Your task to perform on an android device: Go to accessibility settings Image 0: 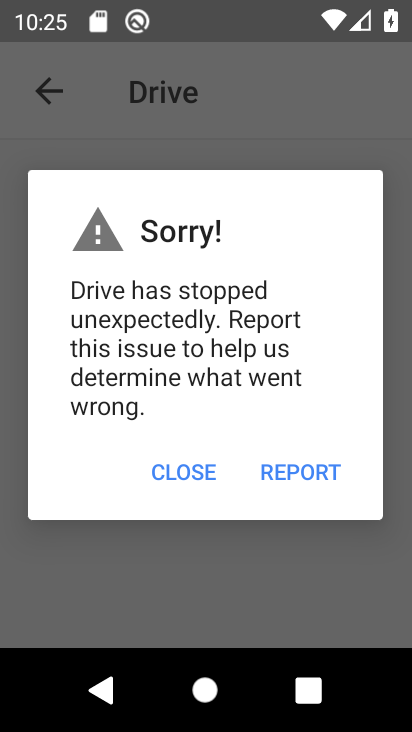
Step 0: press home button
Your task to perform on an android device: Go to accessibility settings Image 1: 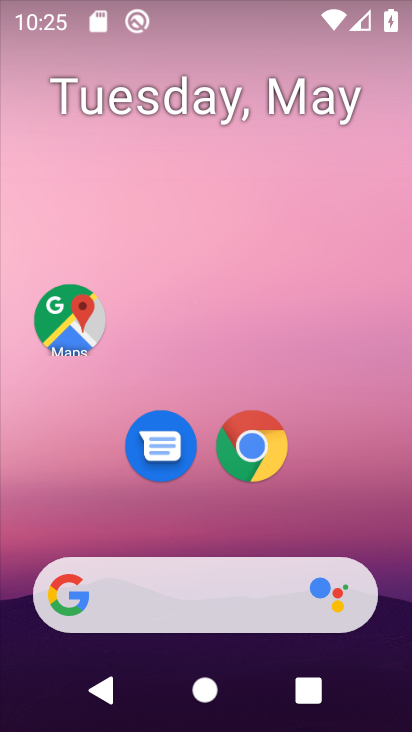
Step 1: drag from (184, 532) to (221, 199)
Your task to perform on an android device: Go to accessibility settings Image 2: 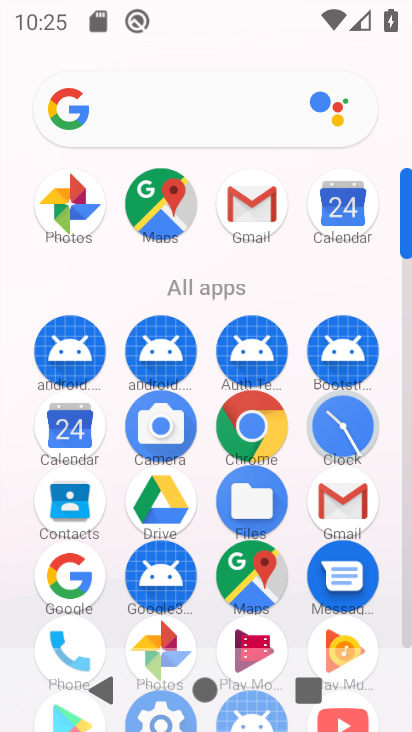
Step 2: drag from (206, 288) to (220, 113)
Your task to perform on an android device: Go to accessibility settings Image 3: 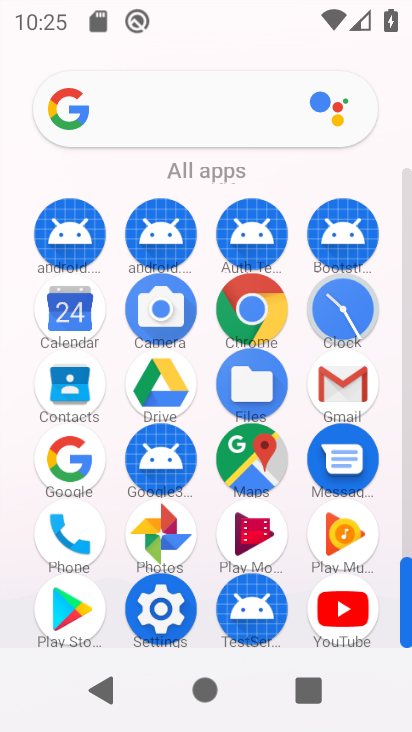
Step 3: click (147, 616)
Your task to perform on an android device: Go to accessibility settings Image 4: 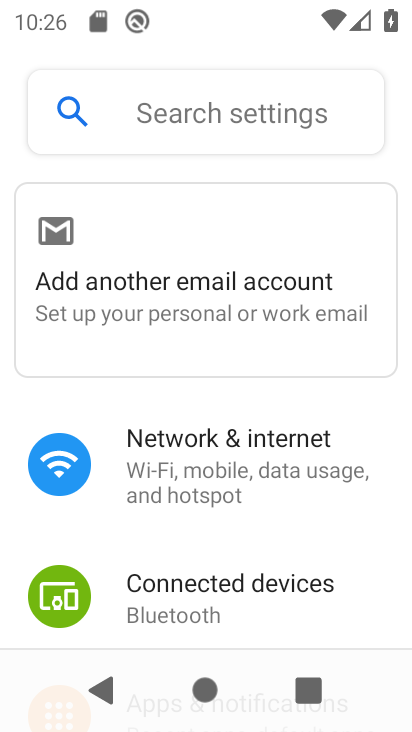
Step 4: drag from (126, 582) to (218, 168)
Your task to perform on an android device: Go to accessibility settings Image 5: 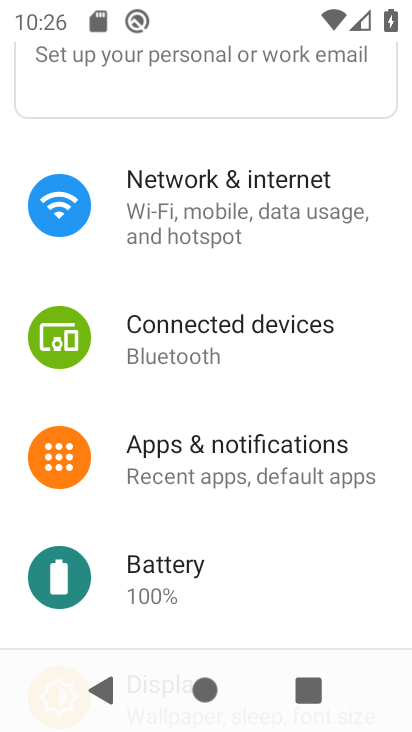
Step 5: drag from (153, 556) to (178, 132)
Your task to perform on an android device: Go to accessibility settings Image 6: 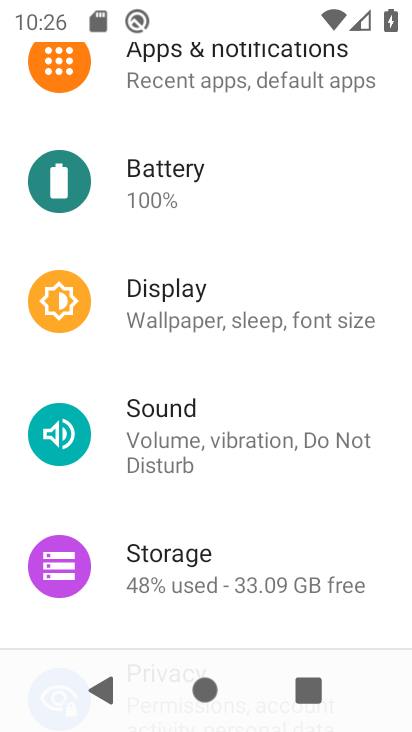
Step 6: drag from (202, 531) to (207, 134)
Your task to perform on an android device: Go to accessibility settings Image 7: 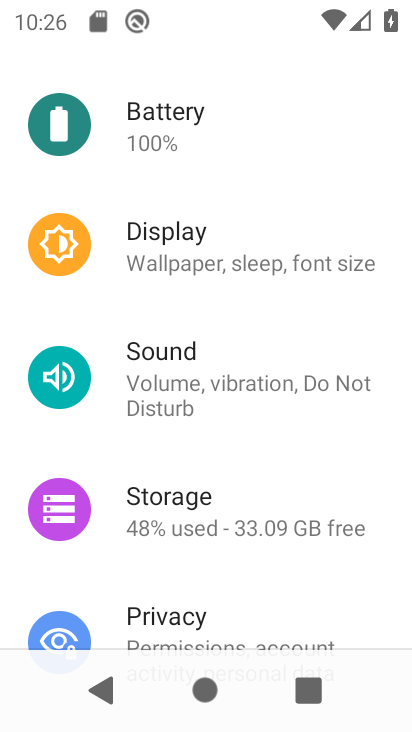
Step 7: drag from (169, 582) to (199, 132)
Your task to perform on an android device: Go to accessibility settings Image 8: 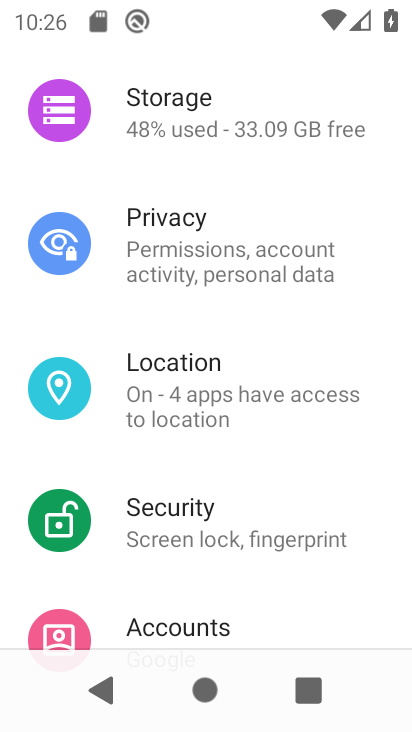
Step 8: drag from (178, 353) to (186, 231)
Your task to perform on an android device: Go to accessibility settings Image 9: 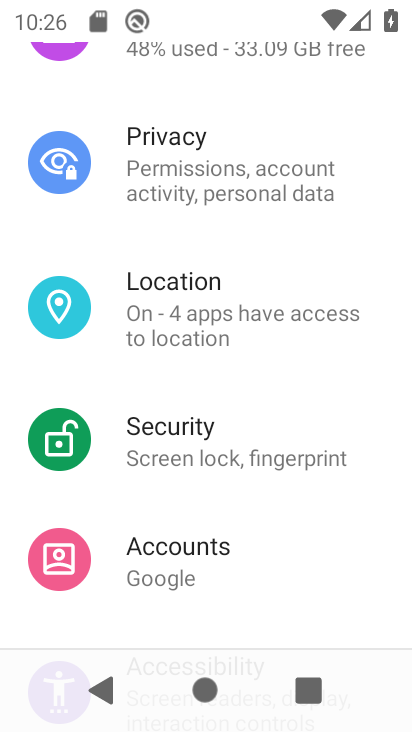
Step 9: drag from (168, 533) to (196, 218)
Your task to perform on an android device: Go to accessibility settings Image 10: 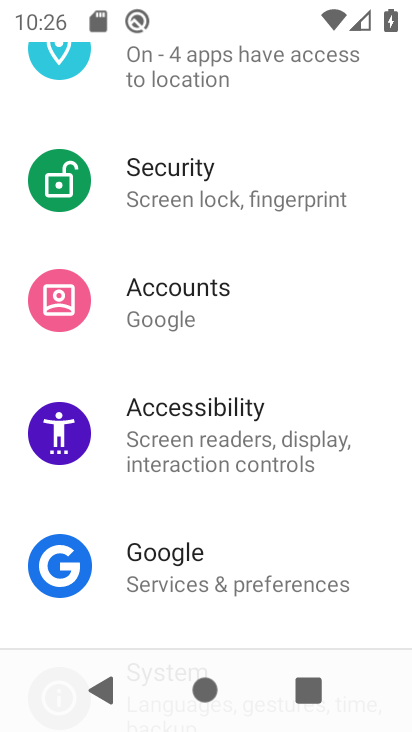
Step 10: drag from (169, 555) to (166, 484)
Your task to perform on an android device: Go to accessibility settings Image 11: 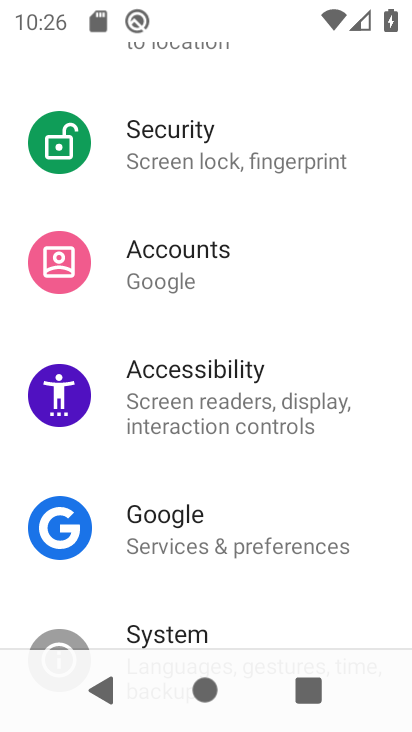
Step 11: click (176, 402)
Your task to perform on an android device: Go to accessibility settings Image 12: 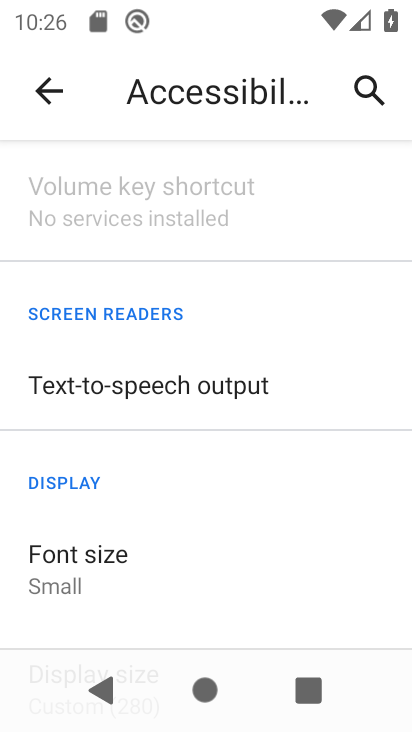
Step 12: task complete